Your task to perform on an android device: change the upload size in google photos Image 0: 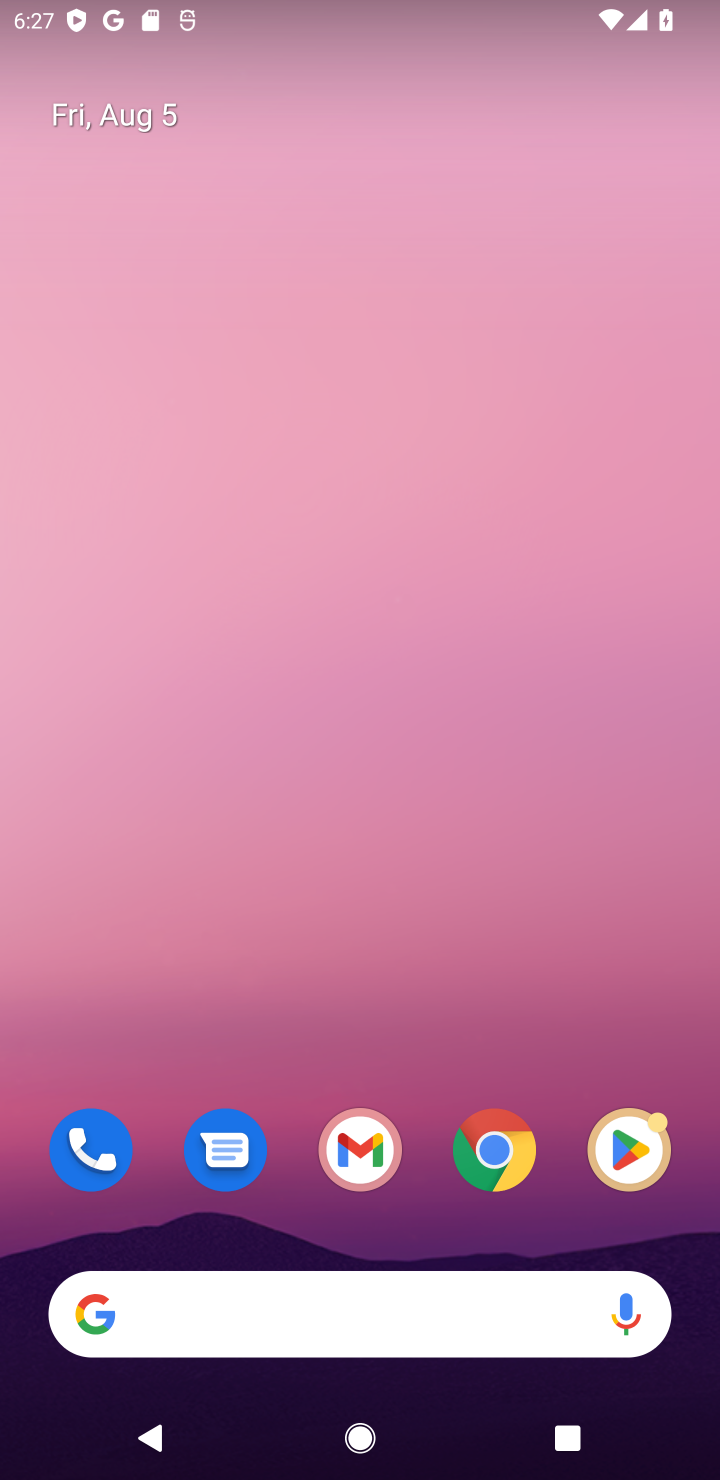
Step 0: drag from (434, 1015) to (356, 454)
Your task to perform on an android device: change the upload size in google photos Image 1: 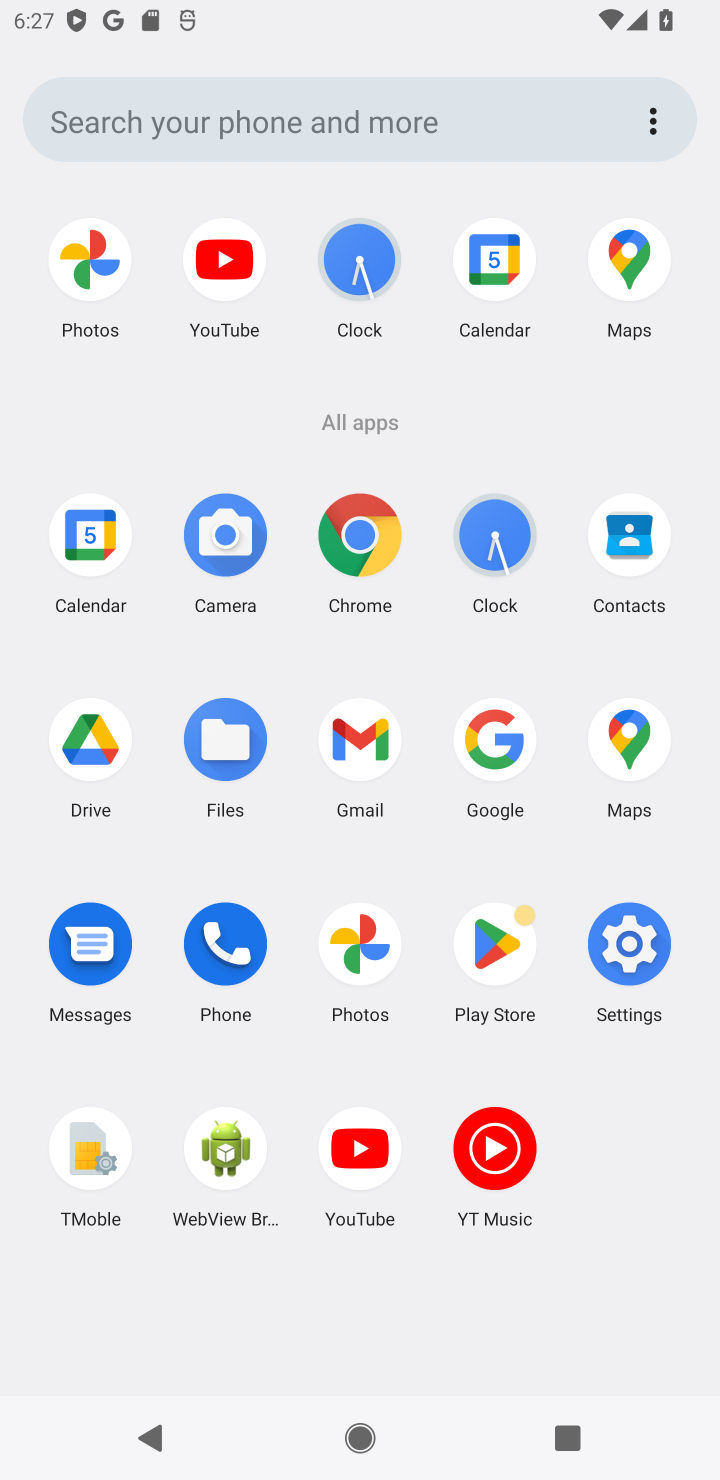
Step 1: click (351, 959)
Your task to perform on an android device: change the upload size in google photos Image 2: 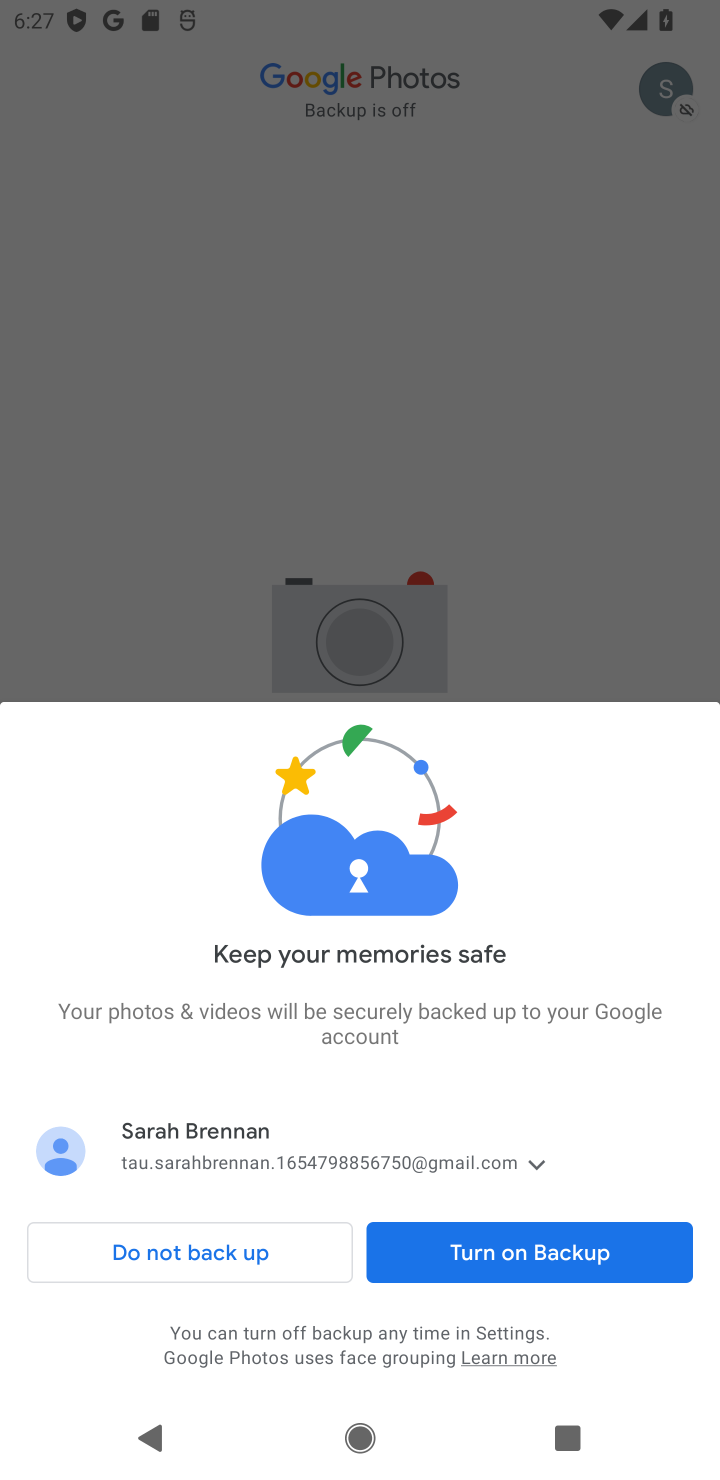
Step 2: task complete